Your task to perform on an android device: toggle priority inbox in the gmail app Image 0: 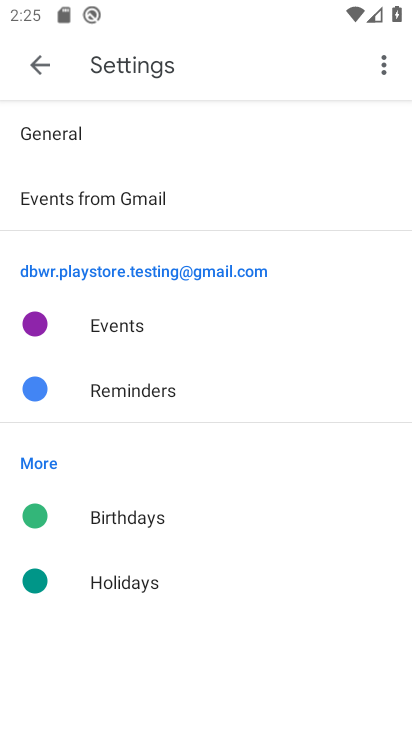
Step 0: press home button
Your task to perform on an android device: toggle priority inbox in the gmail app Image 1: 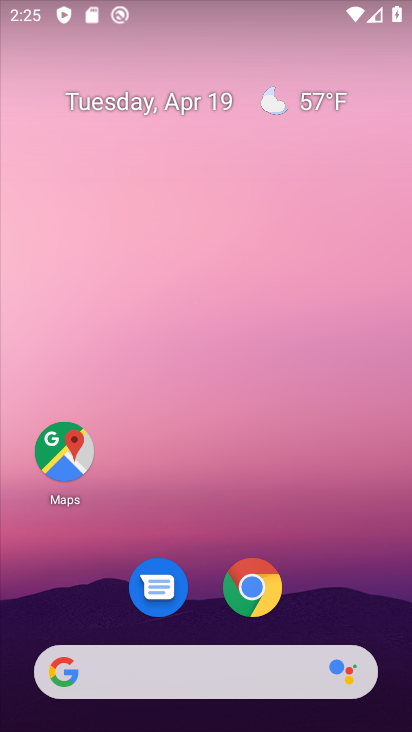
Step 1: drag from (285, 488) to (329, 6)
Your task to perform on an android device: toggle priority inbox in the gmail app Image 2: 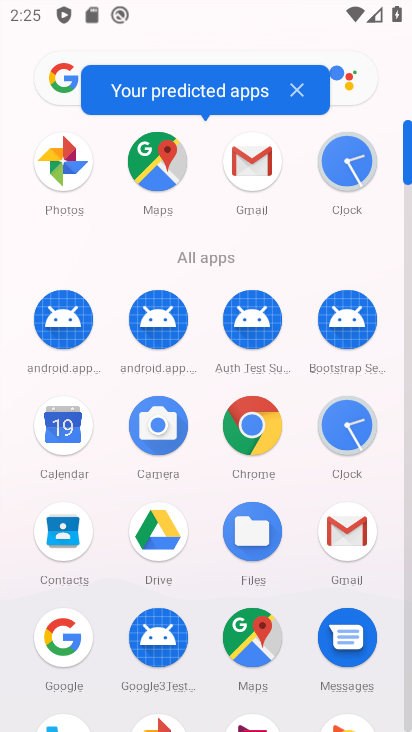
Step 2: click (341, 523)
Your task to perform on an android device: toggle priority inbox in the gmail app Image 3: 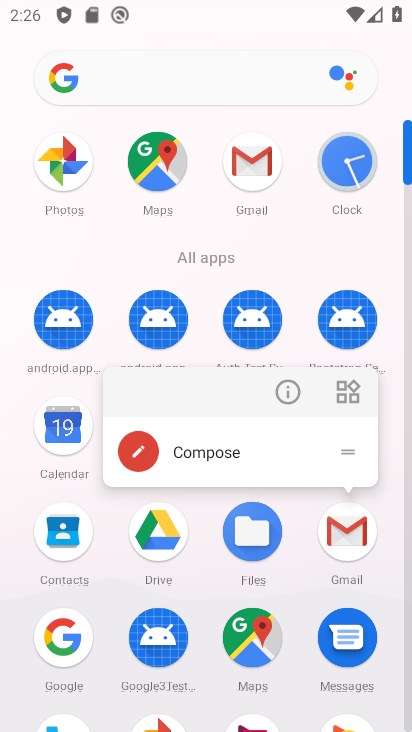
Step 3: click (332, 518)
Your task to perform on an android device: toggle priority inbox in the gmail app Image 4: 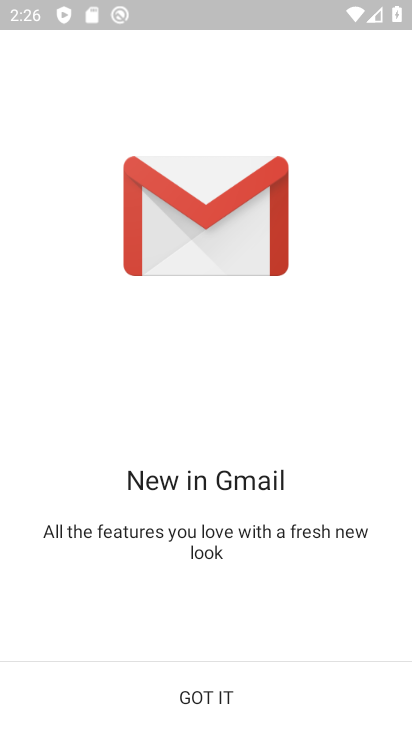
Step 4: click (191, 698)
Your task to perform on an android device: toggle priority inbox in the gmail app Image 5: 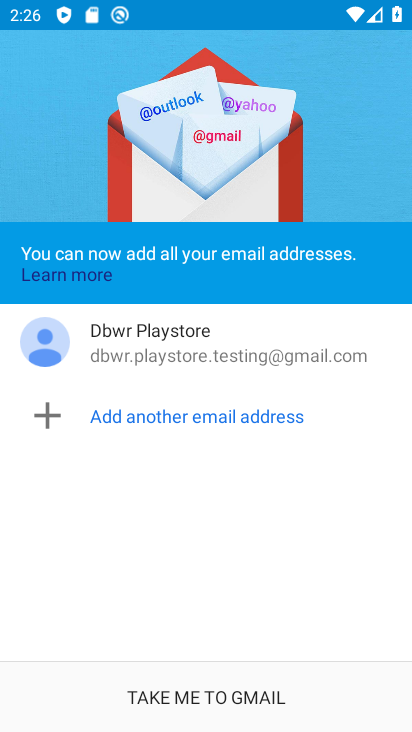
Step 5: click (191, 698)
Your task to perform on an android device: toggle priority inbox in the gmail app Image 6: 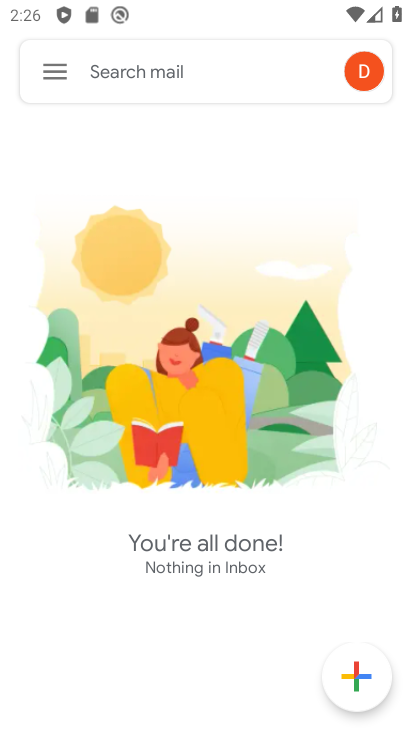
Step 6: click (40, 64)
Your task to perform on an android device: toggle priority inbox in the gmail app Image 7: 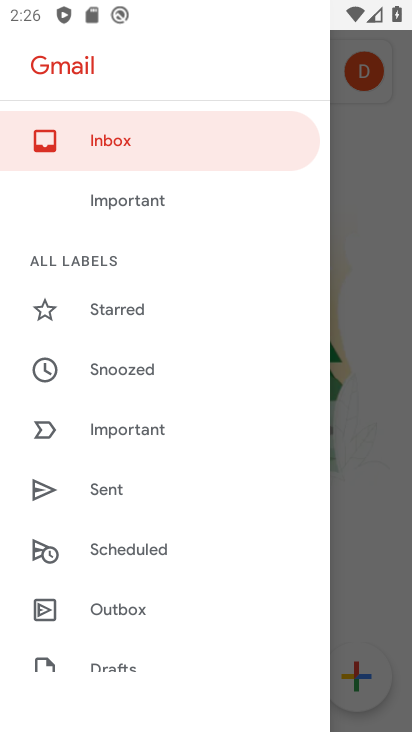
Step 7: drag from (145, 548) to (241, 100)
Your task to perform on an android device: toggle priority inbox in the gmail app Image 8: 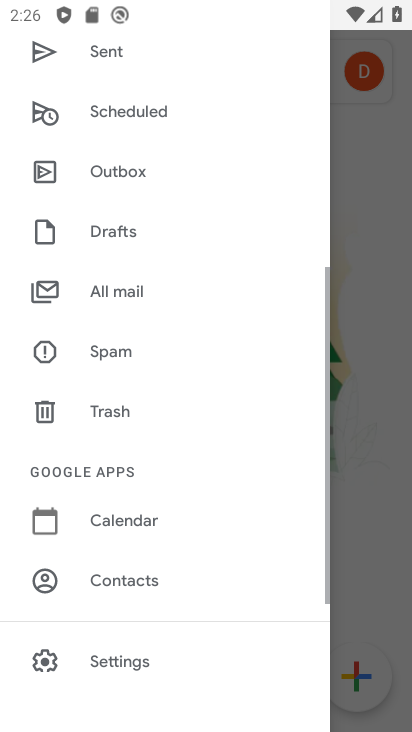
Step 8: drag from (150, 486) to (201, 174)
Your task to perform on an android device: toggle priority inbox in the gmail app Image 9: 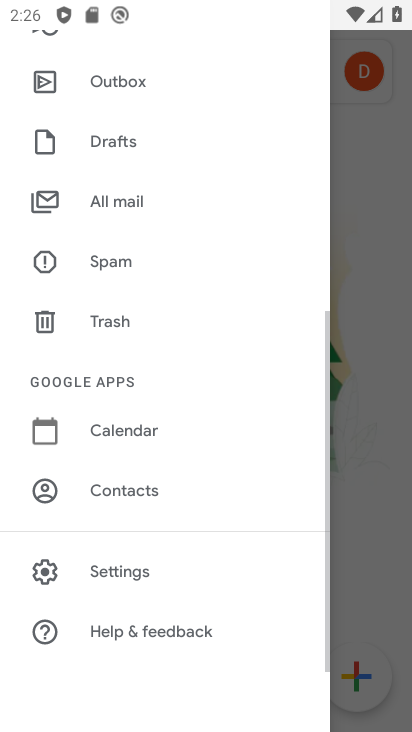
Step 9: click (196, 193)
Your task to perform on an android device: toggle priority inbox in the gmail app Image 10: 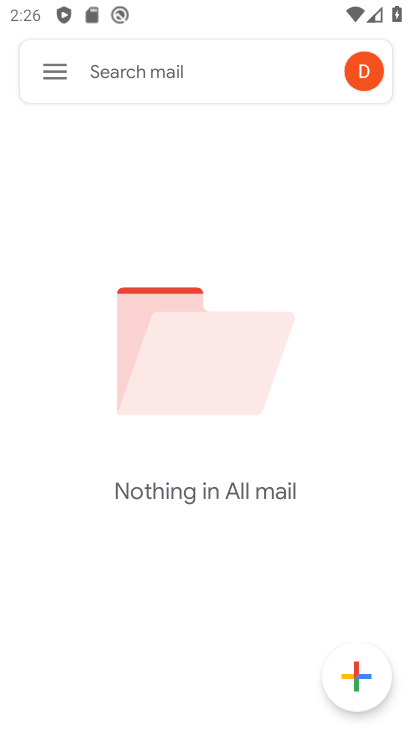
Step 10: click (141, 571)
Your task to perform on an android device: toggle priority inbox in the gmail app Image 11: 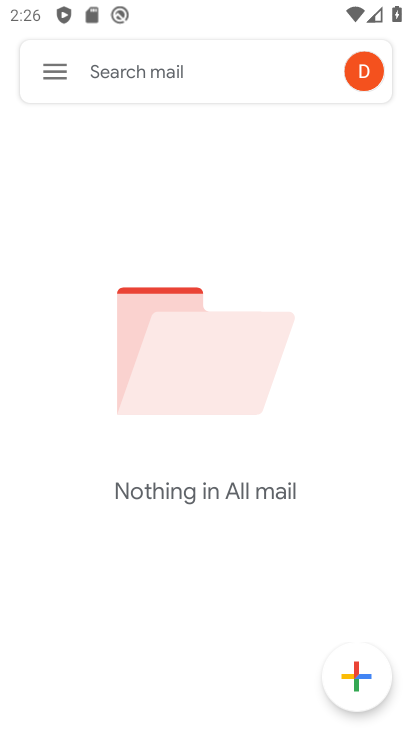
Step 11: click (58, 77)
Your task to perform on an android device: toggle priority inbox in the gmail app Image 12: 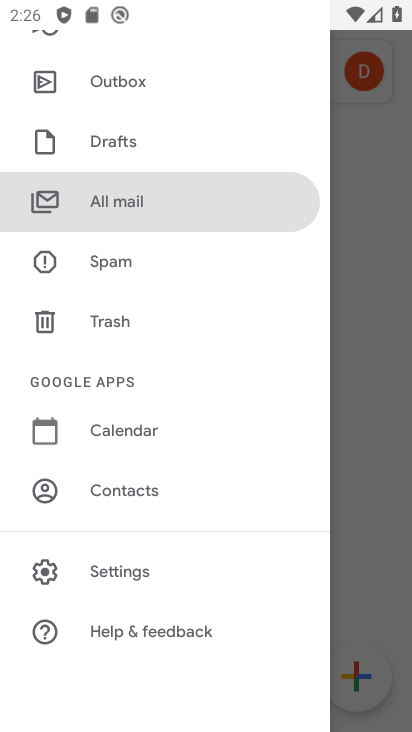
Step 12: click (126, 576)
Your task to perform on an android device: toggle priority inbox in the gmail app Image 13: 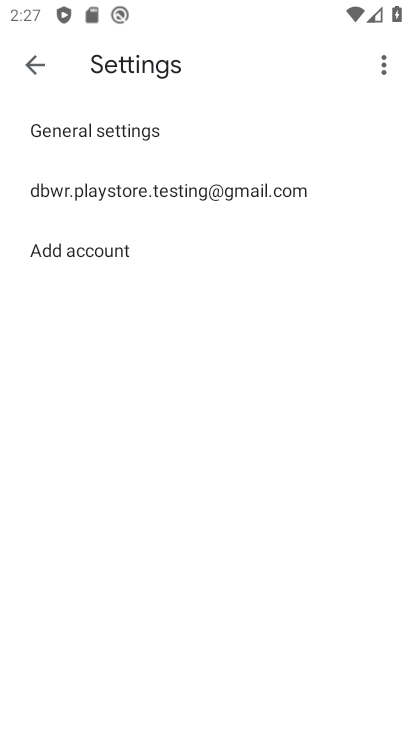
Step 13: click (121, 194)
Your task to perform on an android device: toggle priority inbox in the gmail app Image 14: 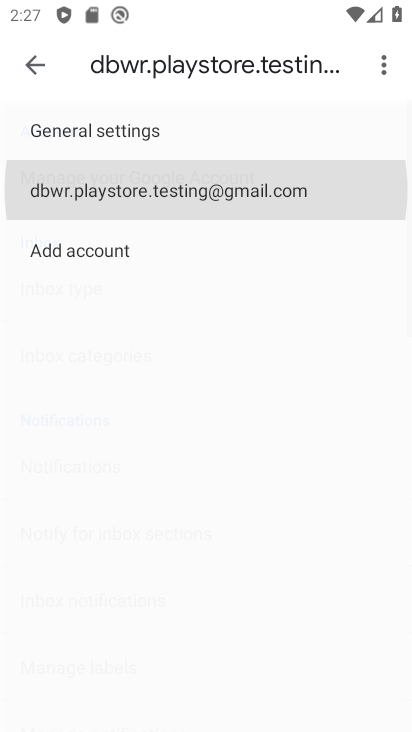
Step 14: click (121, 194)
Your task to perform on an android device: toggle priority inbox in the gmail app Image 15: 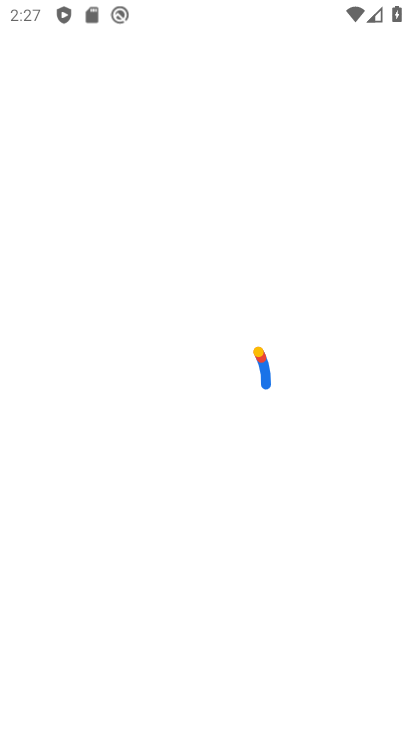
Step 15: click (92, 310)
Your task to perform on an android device: toggle priority inbox in the gmail app Image 16: 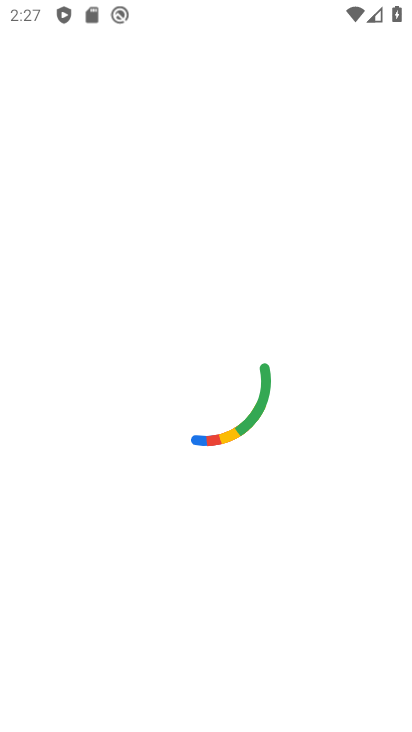
Step 16: press back button
Your task to perform on an android device: toggle priority inbox in the gmail app Image 17: 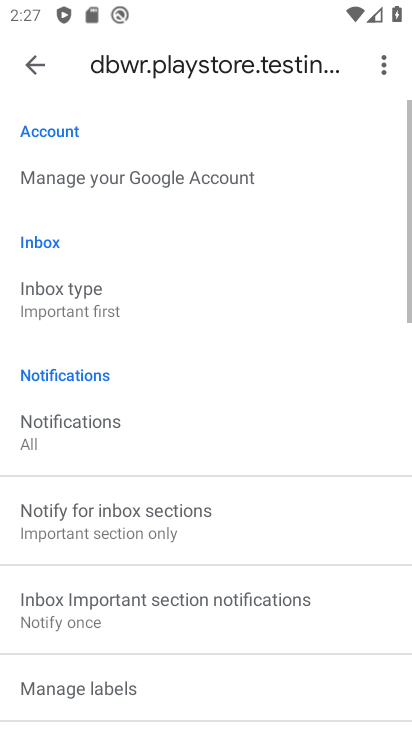
Step 17: click (84, 303)
Your task to perform on an android device: toggle priority inbox in the gmail app Image 18: 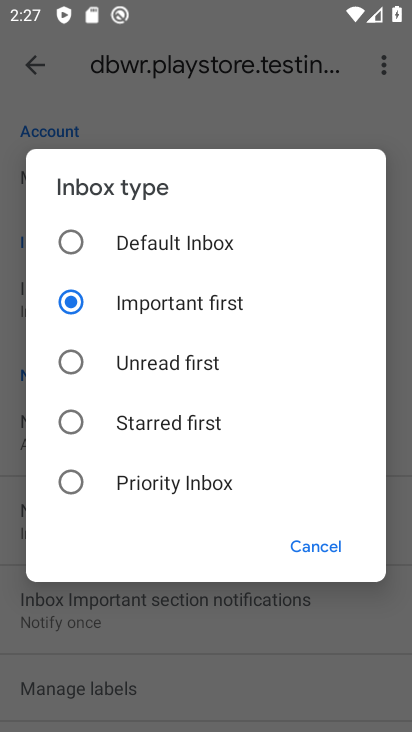
Step 18: click (80, 485)
Your task to perform on an android device: toggle priority inbox in the gmail app Image 19: 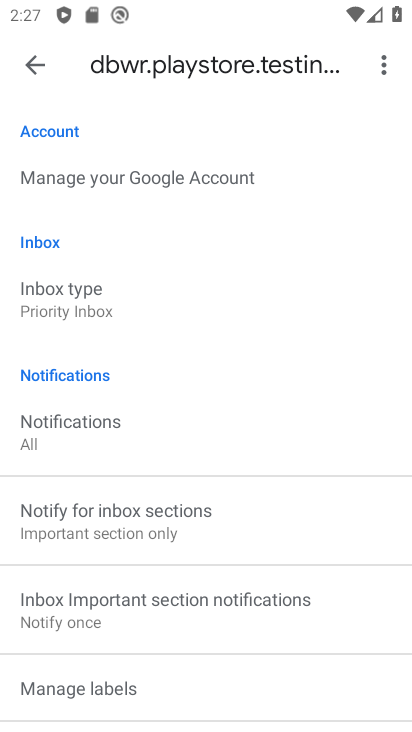
Step 19: task complete